Your task to perform on an android device: Open calendar and show me the first week of next month Image 0: 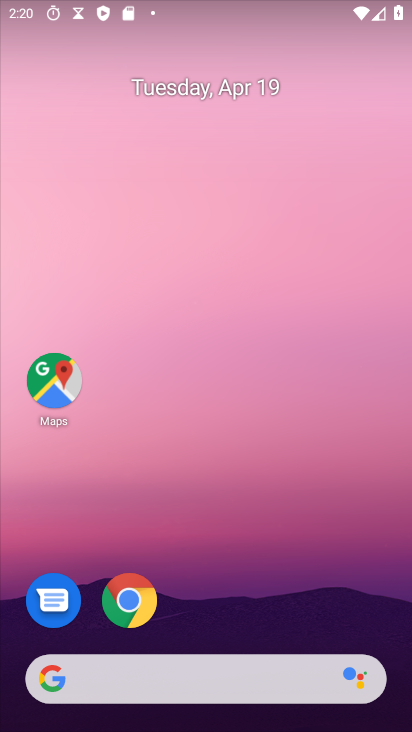
Step 0: drag from (257, 700) to (384, 253)
Your task to perform on an android device: Open calendar and show me the first week of next month Image 1: 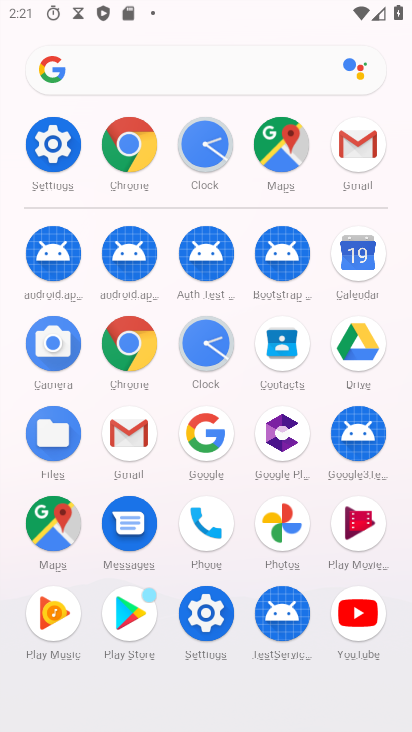
Step 1: drag from (162, 512) to (230, 300)
Your task to perform on an android device: Open calendar and show me the first week of next month Image 2: 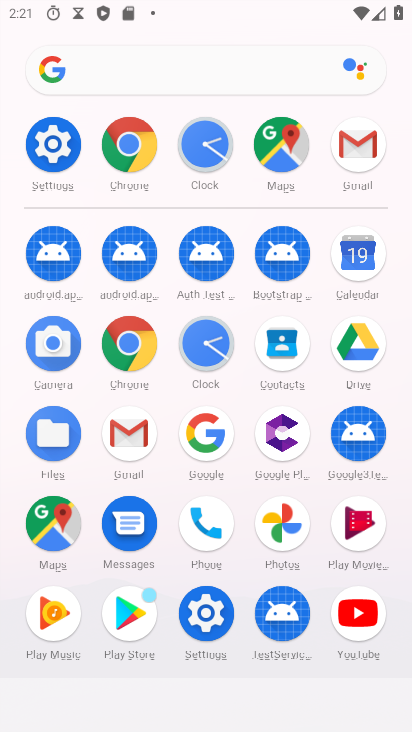
Step 2: click (353, 223)
Your task to perform on an android device: Open calendar and show me the first week of next month Image 3: 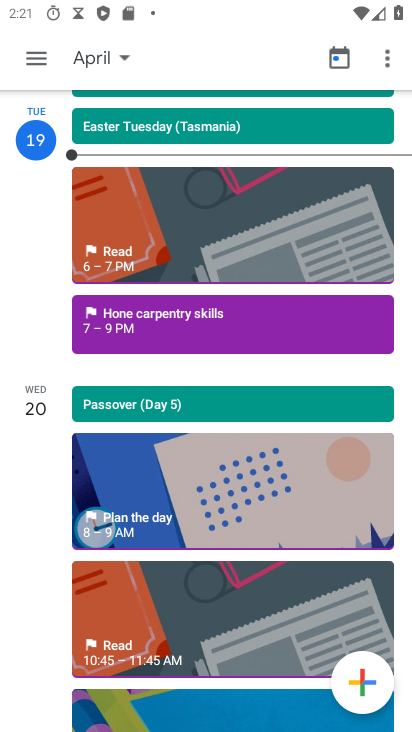
Step 3: click (50, 72)
Your task to perform on an android device: Open calendar and show me the first week of next month Image 4: 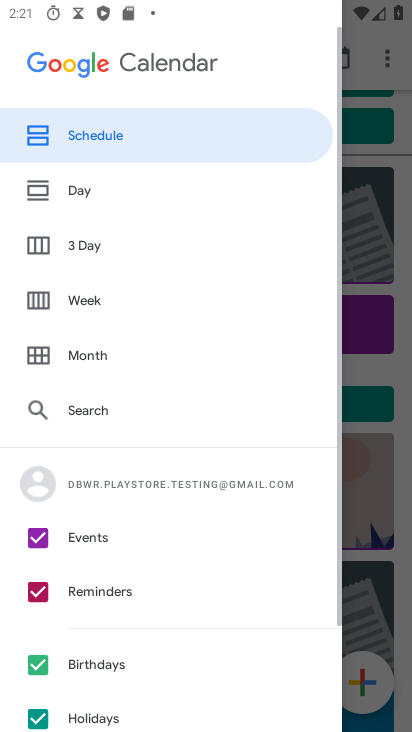
Step 4: click (120, 355)
Your task to perform on an android device: Open calendar and show me the first week of next month Image 5: 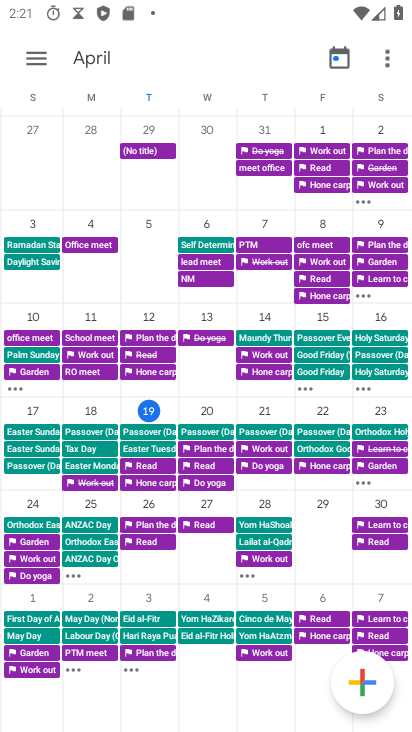
Step 5: drag from (383, 406) to (2, 443)
Your task to perform on an android device: Open calendar and show me the first week of next month Image 6: 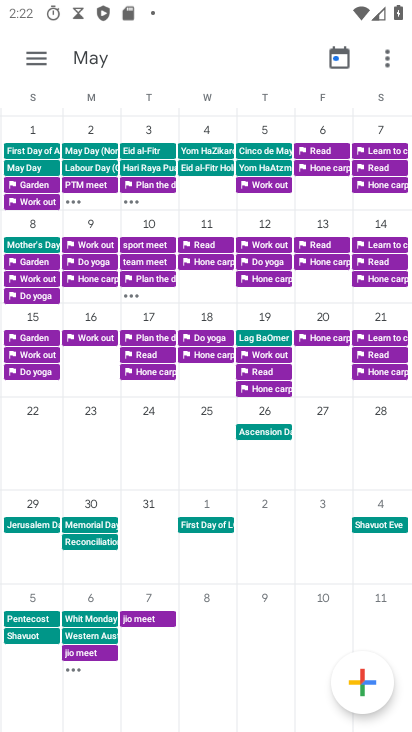
Step 6: click (101, 161)
Your task to perform on an android device: Open calendar and show me the first week of next month Image 7: 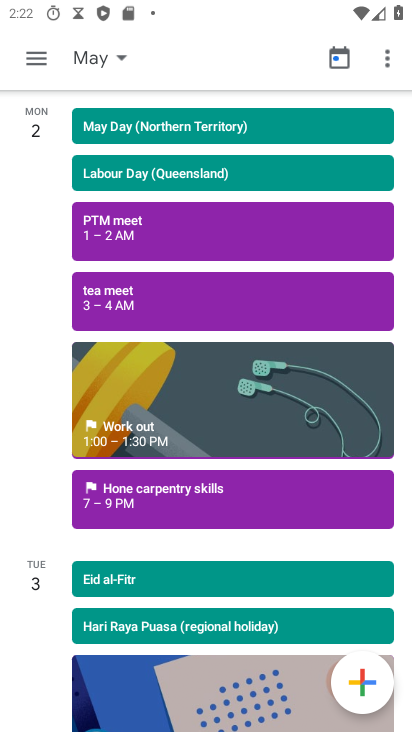
Step 7: task complete